Your task to perform on an android device: toggle priority inbox in the gmail app Image 0: 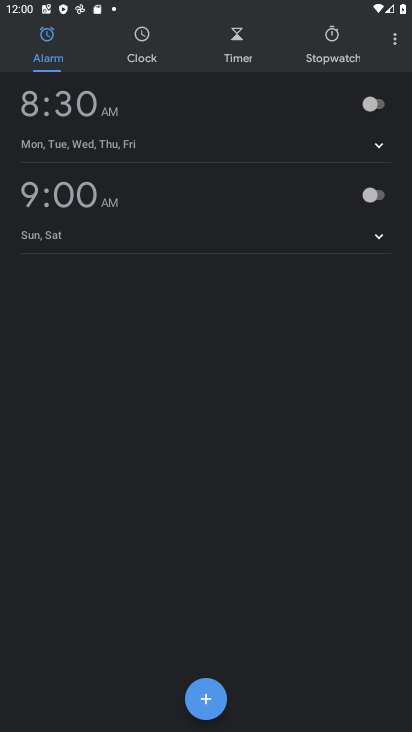
Step 0: press home button
Your task to perform on an android device: toggle priority inbox in the gmail app Image 1: 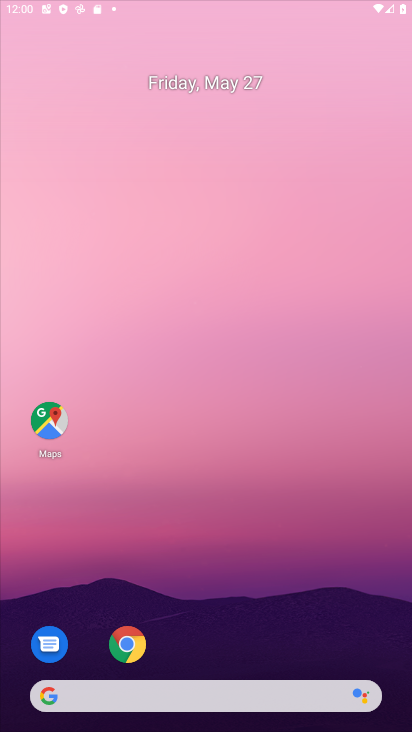
Step 1: drag from (339, 605) to (242, 14)
Your task to perform on an android device: toggle priority inbox in the gmail app Image 2: 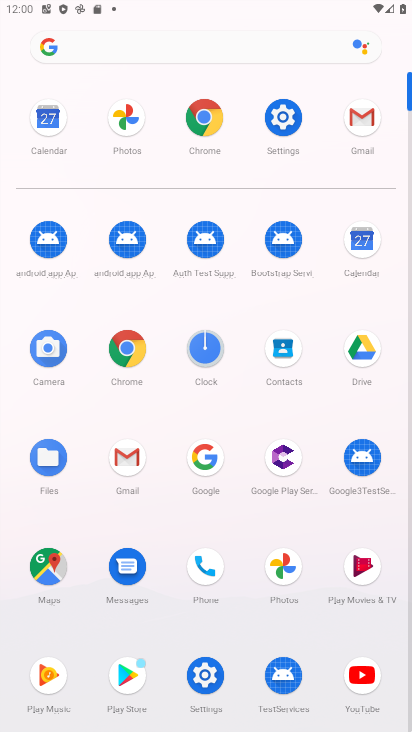
Step 2: click (125, 464)
Your task to perform on an android device: toggle priority inbox in the gmail app Image 3: 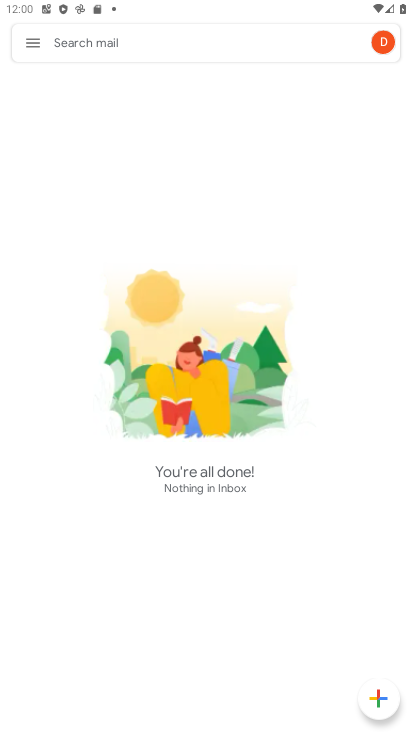
Step 3: click (36, 47)
Your task to perform on an android device: toggle priority inbox in the gmail app Image 4: 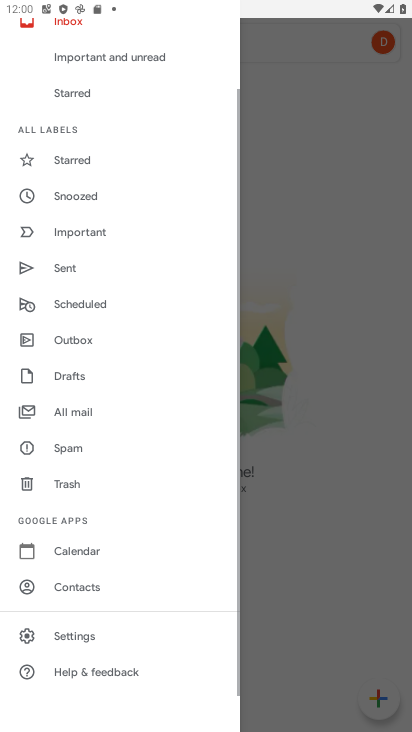
Step 4: click (112, 630)
Your task to perform on an android device: toggle priority inbox in the gmail app Image 5: 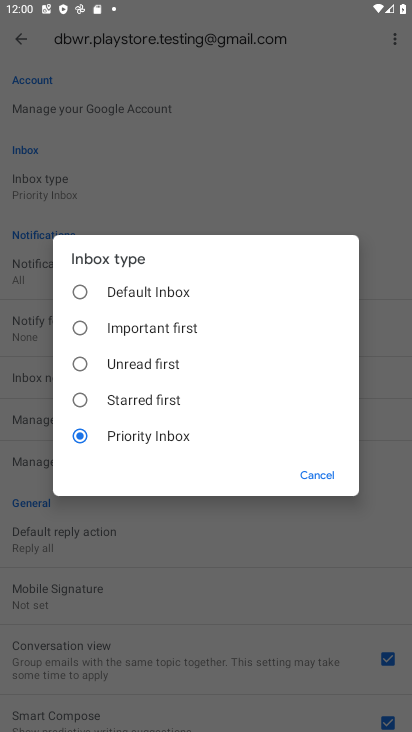
Step 5: click (77, 296)
Your task to perform on an android device: toggle priority inbox in the gmail app Image 6: 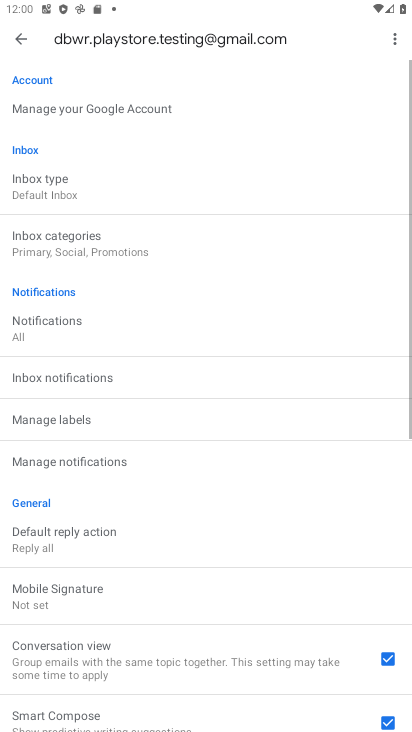
Step 6: task complete